Your task to perform on an android device: turn off data saver in the chrome app Image 0: 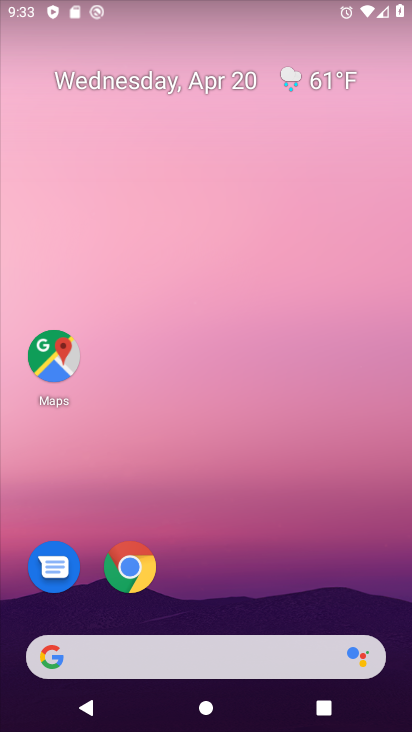
Step 0: click (135, 558)
Your task to perform on an android device: turn off data saver in the chrome app Image 1: 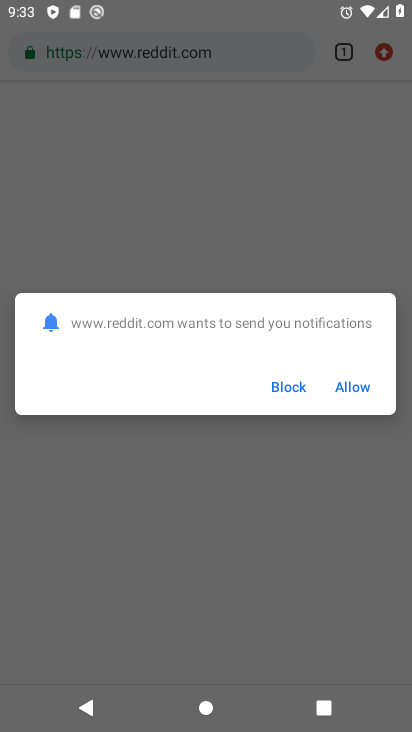
Step 1: press home button
Your task to perform on an android device: turn off data saver in the chrome app Image 2: 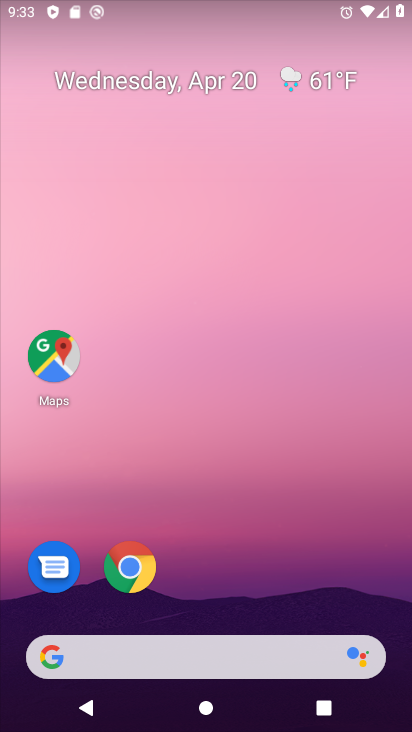
Step 2: click (138, 549)
Your task to perform on an android device: turn off data saver in the chrome app Image 3: 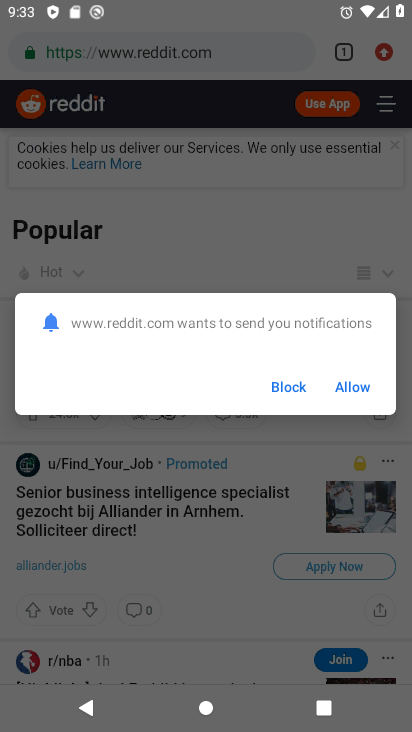
Step 3: click (345, 385)
Your task to perform on an android device: turn off data saver in the chrome app Image 4: 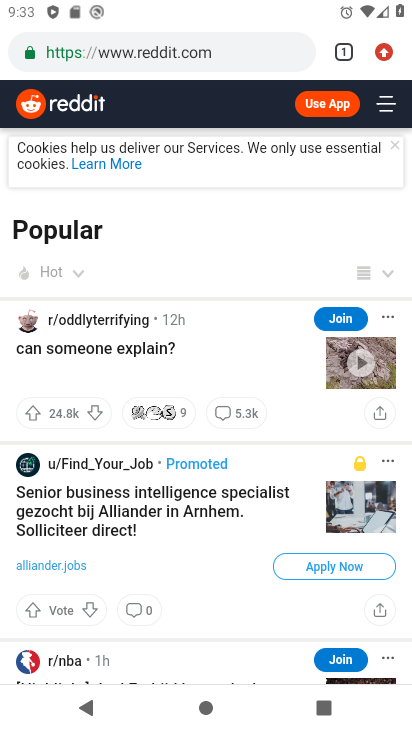
Step 4: drag from (382, 52) to (221, 624)
Your task to perform on an android device: turn off data saver in the chrome app Image 5: 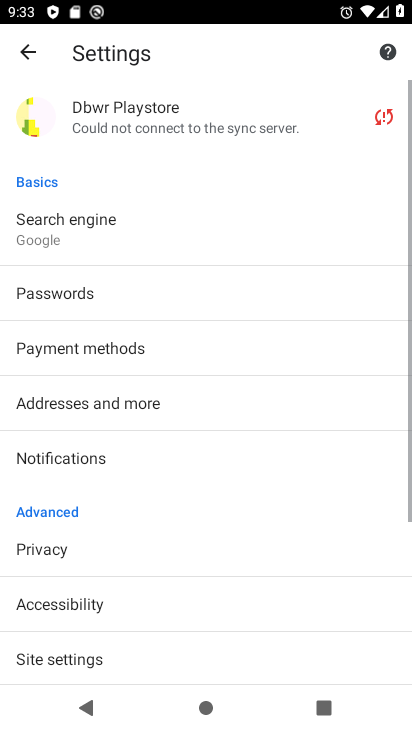
Step 5: drag from (123, 615) to (136, 168)
Your task to perform on an android device: turn off data saver in the chrome app Image 6: 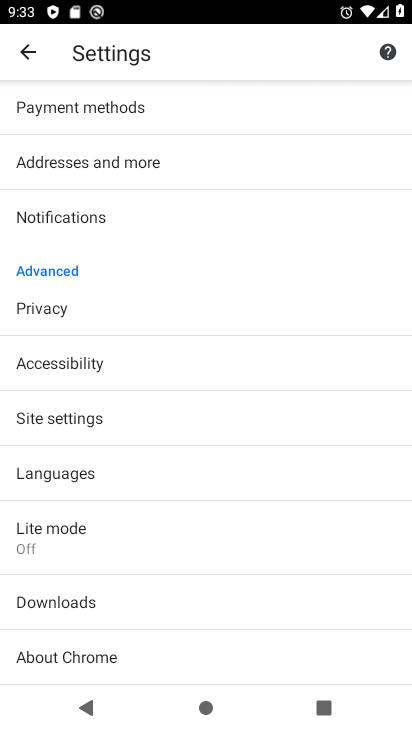
Step 6: click (92, 545)
Your task to perform on an android device: turn off data saver in the chrome app Image 7: 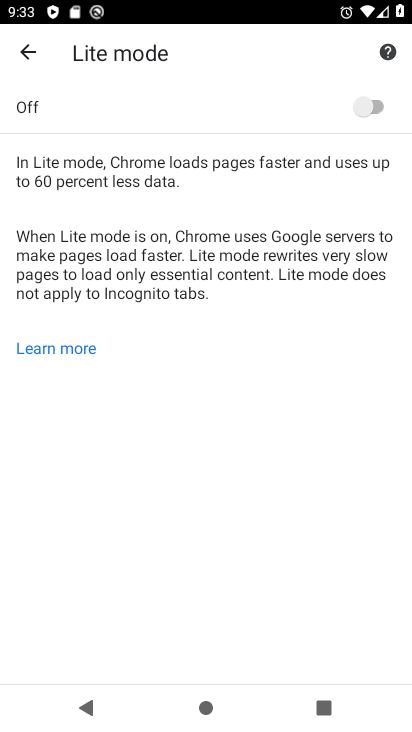
Step 7: task complete